Your task to perform on an android device: Open the calendar and show me this week's events? Image 0: 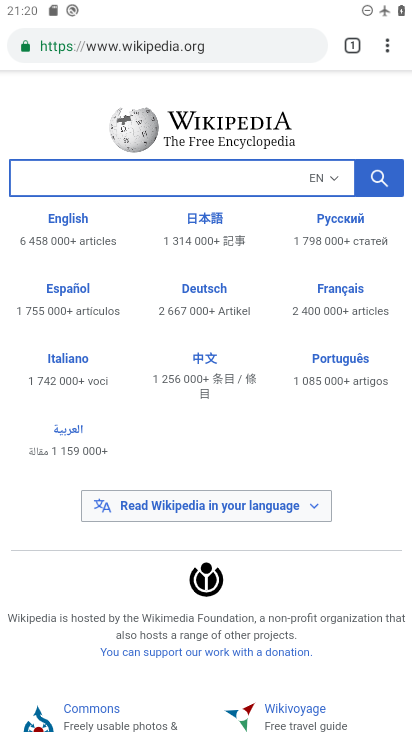
Step 0: press home button
Your task to perform on an android device: Open the calendar and show me this week's events? Image 1: 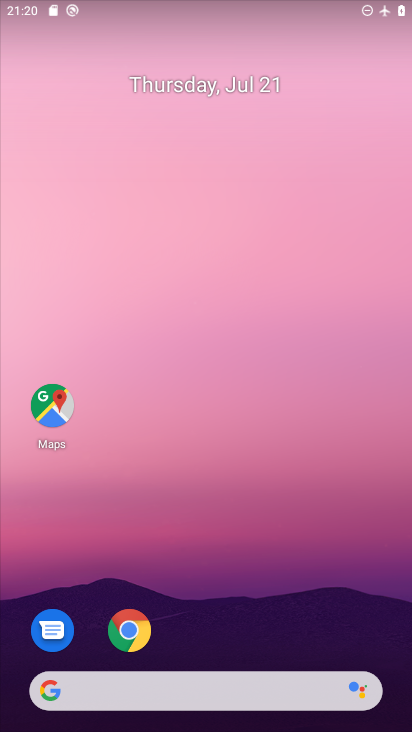
Step 1: drag from (325, 600) to (278, 40)
Your task to perform on an android device: Open the calendar and show me this week's events? Image 2: 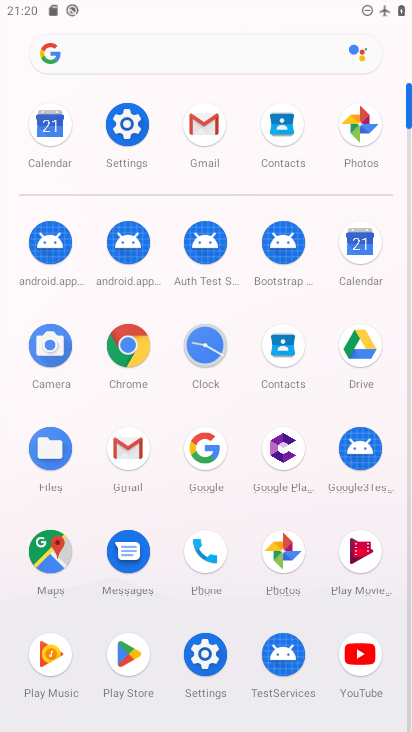
Step 2: click (380, 250)
Your task to perform on an android device: Open the calendar and show me this week's events? Image 3: 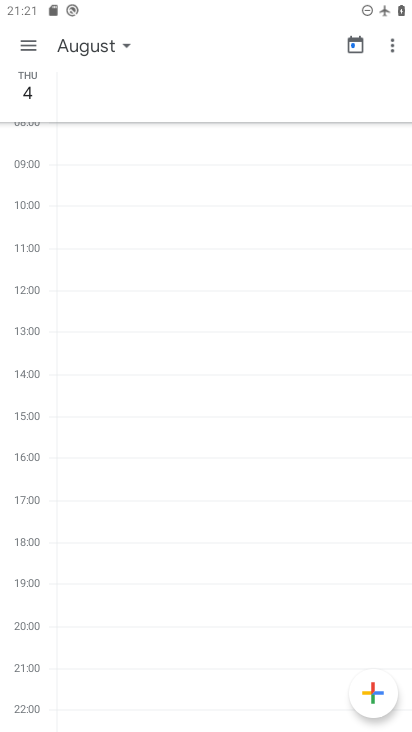
Step 3: click (107, 56)
Your task to perform on an android device: Open the calendar and show me this week's events? Image 4: 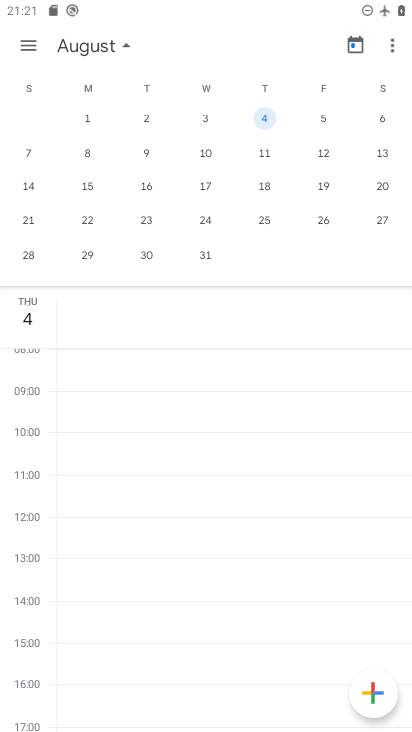
Step 4: drag from (62, 270) to (396, 246)
Your task to perform on an android device: Open the calendar and show me this week's events? Image 5: 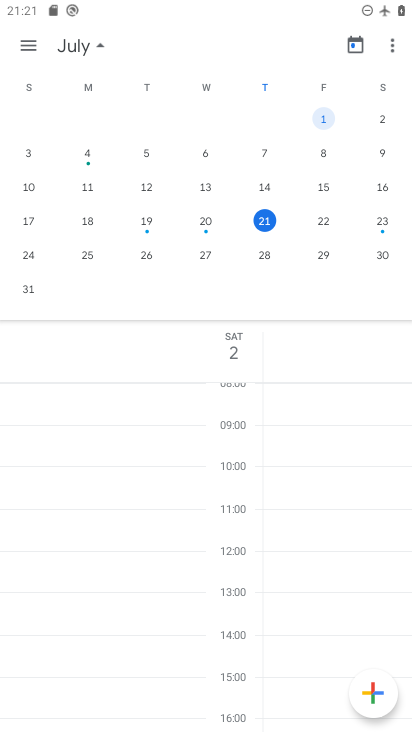
Step 5: click (195, 222)
Your task to perform on an android device: Open the calendar and show me this week's events? Image 6: 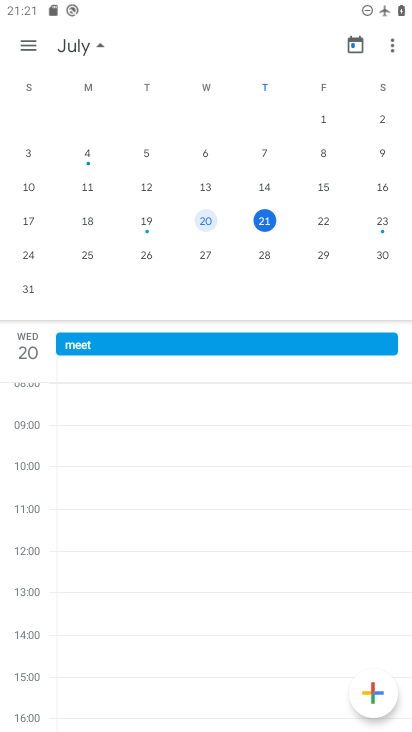
Step 6: click (31, 32)
Your task to perform on an android device: Open the calendar and show me this week's events? Image 7: 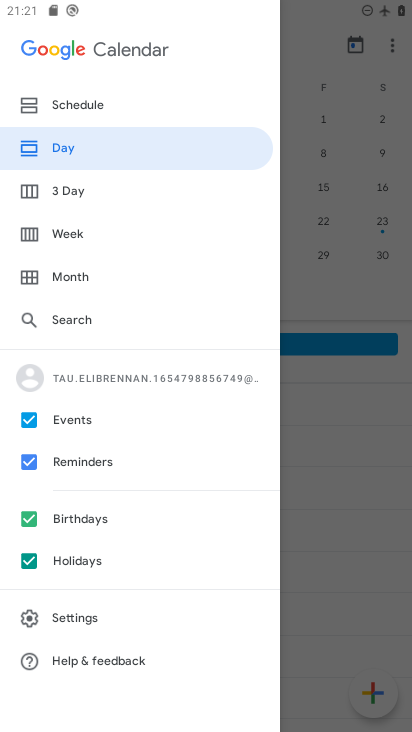
Step 7: click (65, 226)
Your task to perform on an android device: Open the calendar and show me this week's events? Image 8: 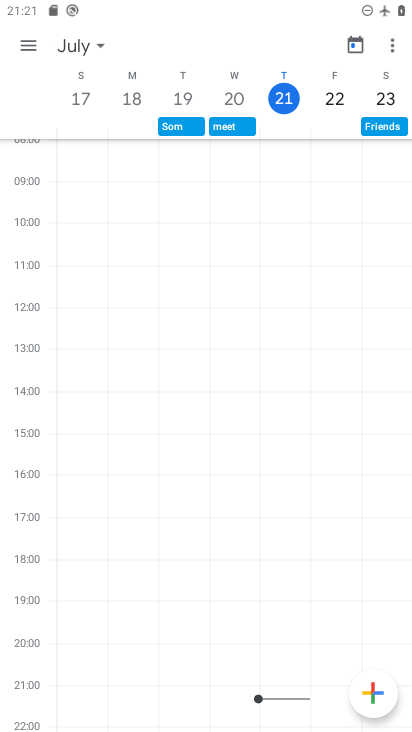
Step 8: task complete